Your task to perform on an android device: Do I have any events today? Image 0: 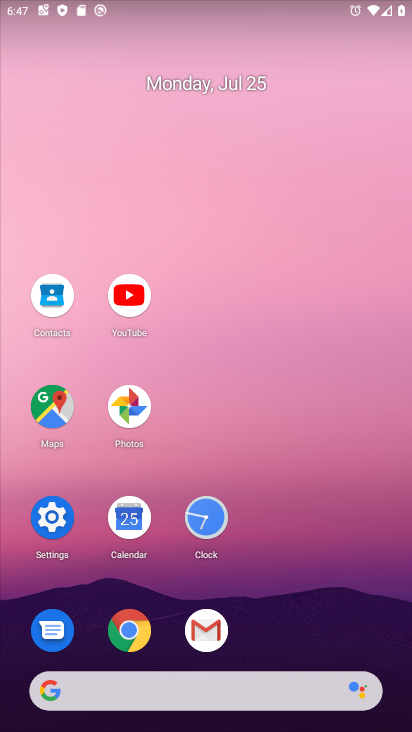
Step 0: click (125, 515)
Your task to perform on an android device: Do I have any events today? Image 1: 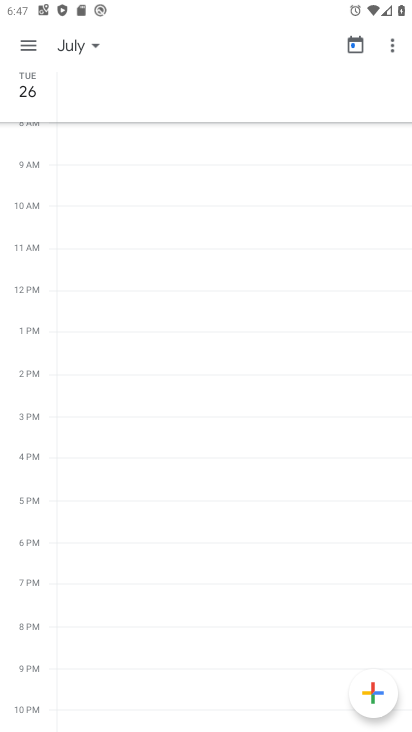
Step 1: click (92, 42)
Your task to perform on an android device: Do I have any events today? Image 2: 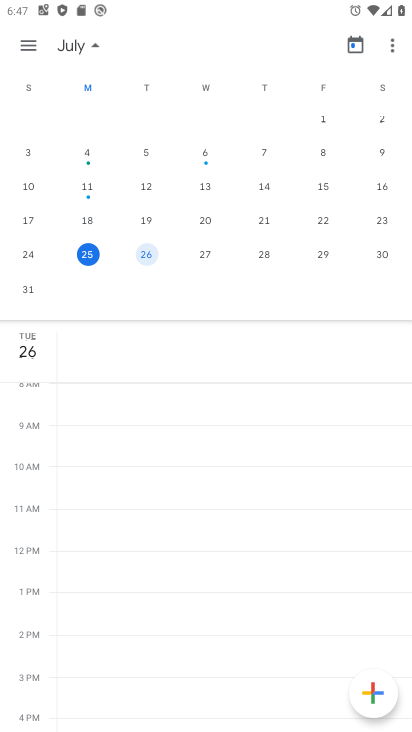
Step 2: click (89, 246)
Your task to perform on an android device: Do I have any events today? Image 3: 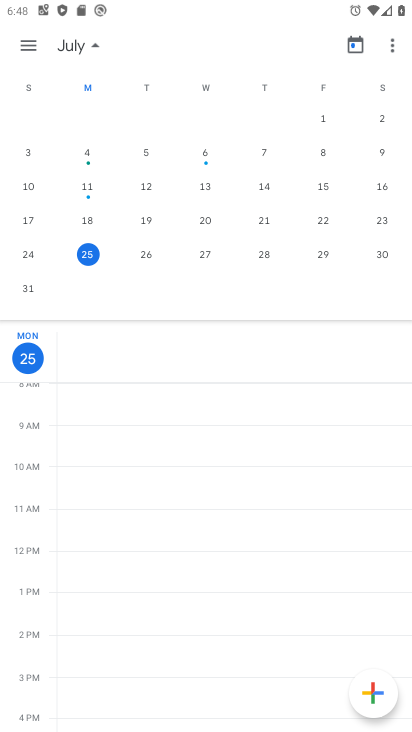
Step 3: task complete